Your task to perform on an android device: find which apps use the phone's location Image 0: 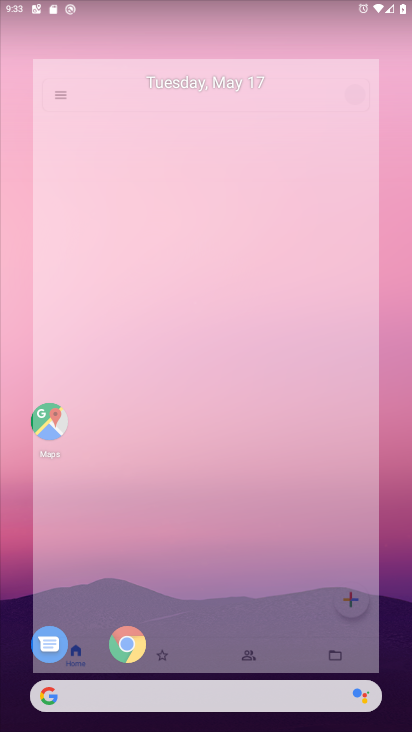
Step 0: click (127, 642)
Your task to perform on an android device: find which apps use the phone's location Image 1: 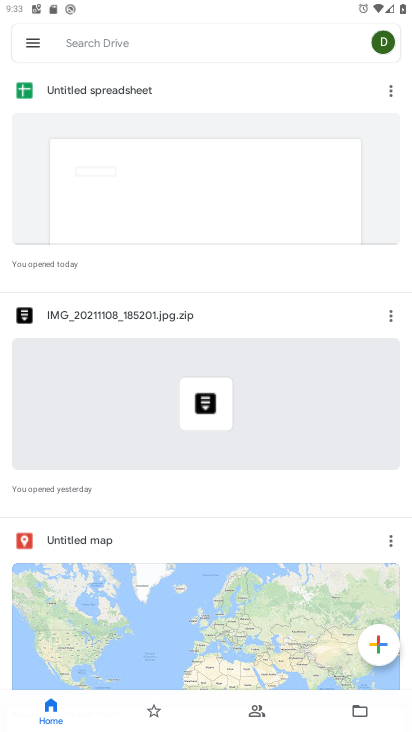
Step 1: press home button
Your task to perform on an android device: find which apps use the phone's location Image 2: 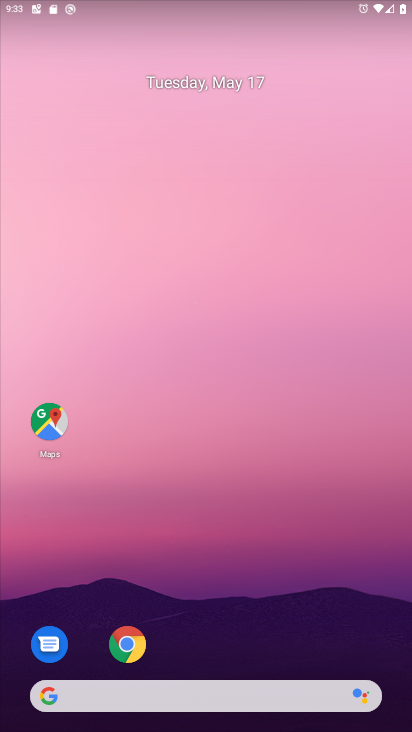
Step 2: drag from (226, 652) to (220, 0)
Your task to perform on an android device: find which apps use the phone's location Image 3: 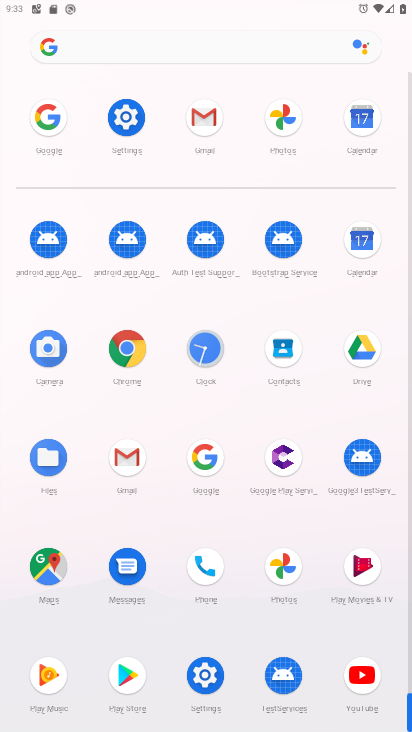
Step 3: click (121, 110)
Your task to perform on an android device: find which apps use the phone's location Image 4: 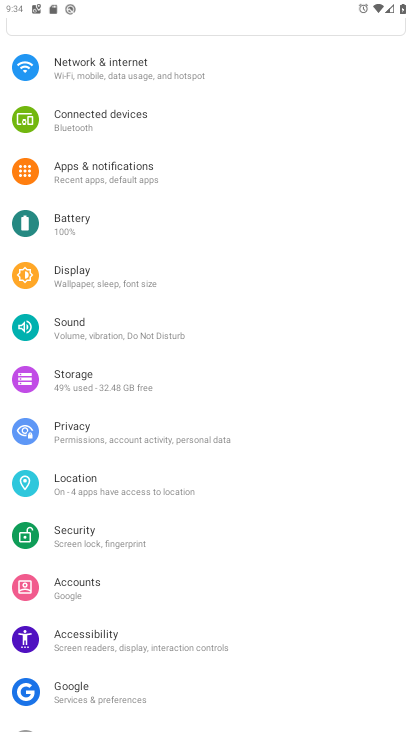
Step 4: click (122, 478)
Your task to perform on an android device: find which apps use the phone's location Image 5: 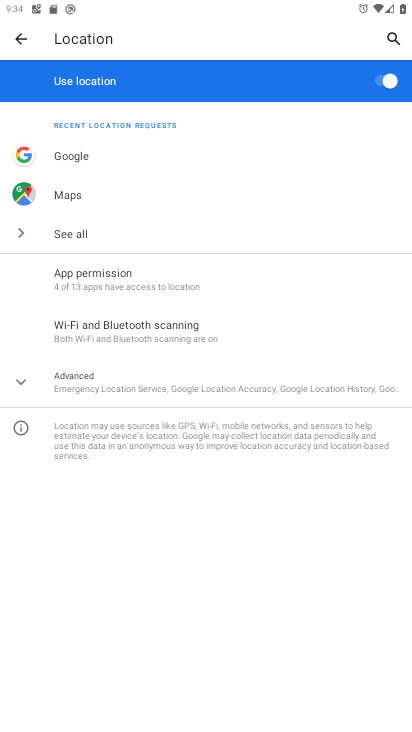
Step 5: click (145, 269)
Your task to perform on an android device: find which apps use the phone's location Image 6: 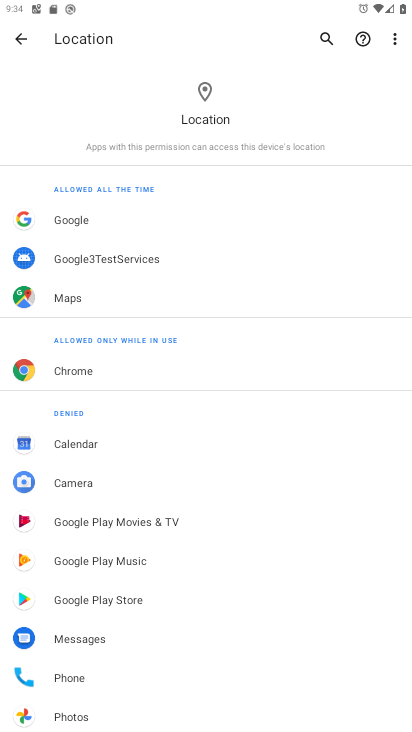
Step 6: task complete